Your task to perform on an android device: Open Google Chrome and click the shortcut for Amazon.com Image 0: 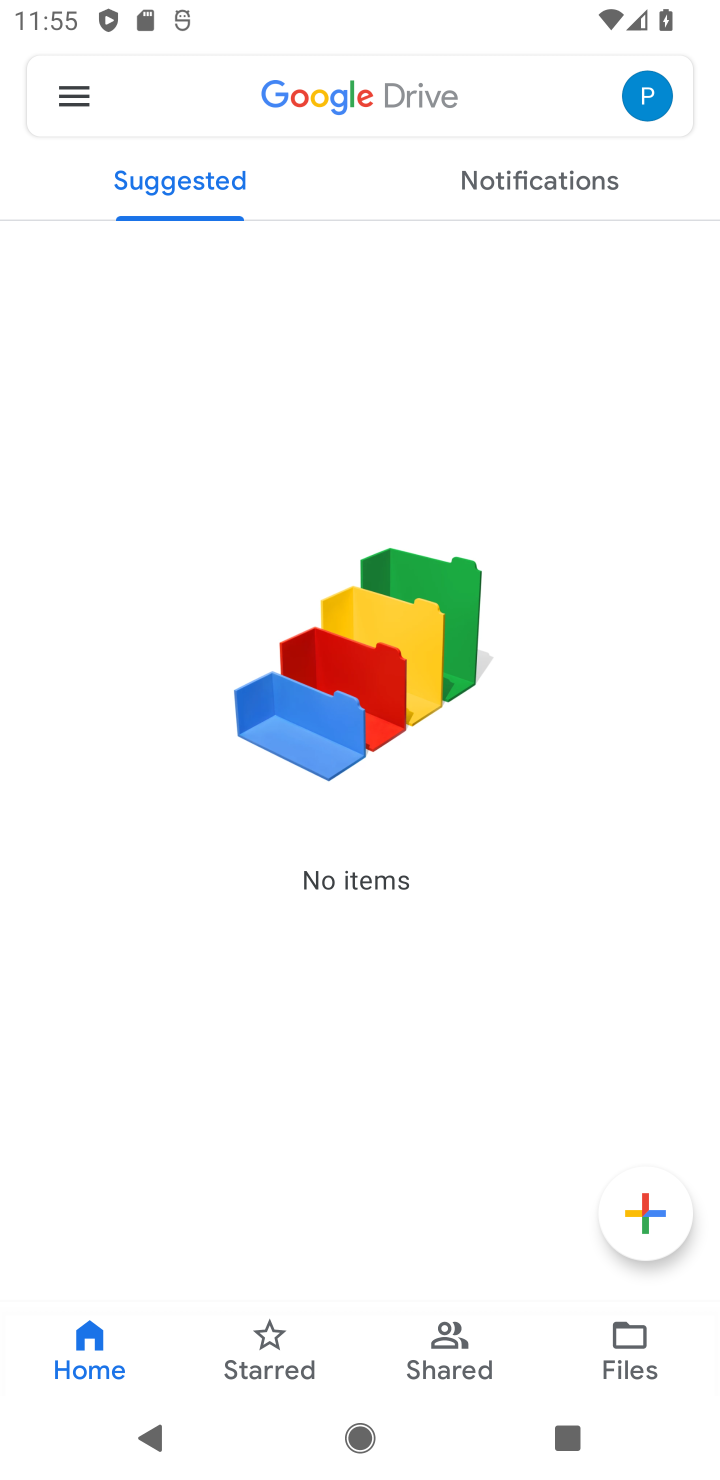
Step 0: press home button
Your task to perform on an android device: Open Google Chrome and click the shortcut for Amazon.com Image 1: 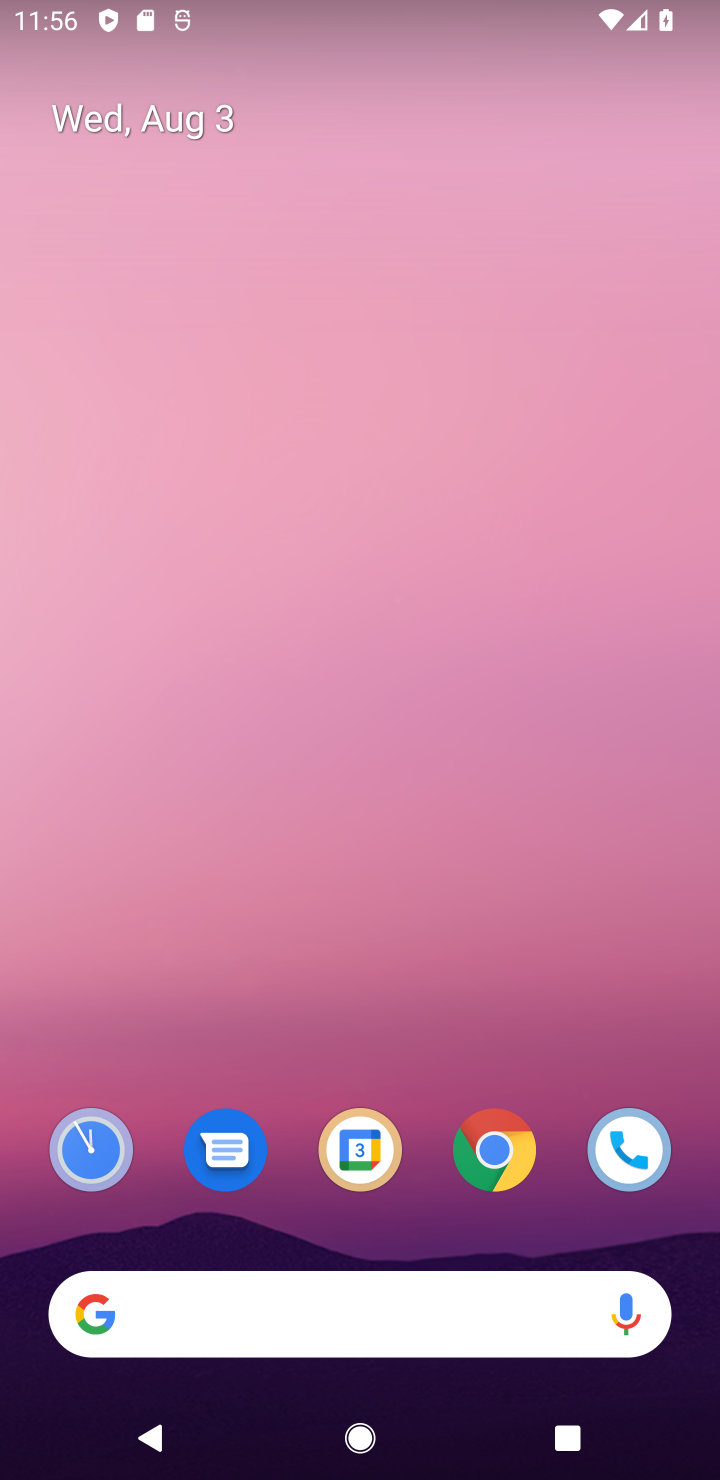
Step 1: drag from (427, 1074) to (376, 380)
Your task to perform on an android device: Open Google Chrome and click the shortcut for Amazon.com Image 2: 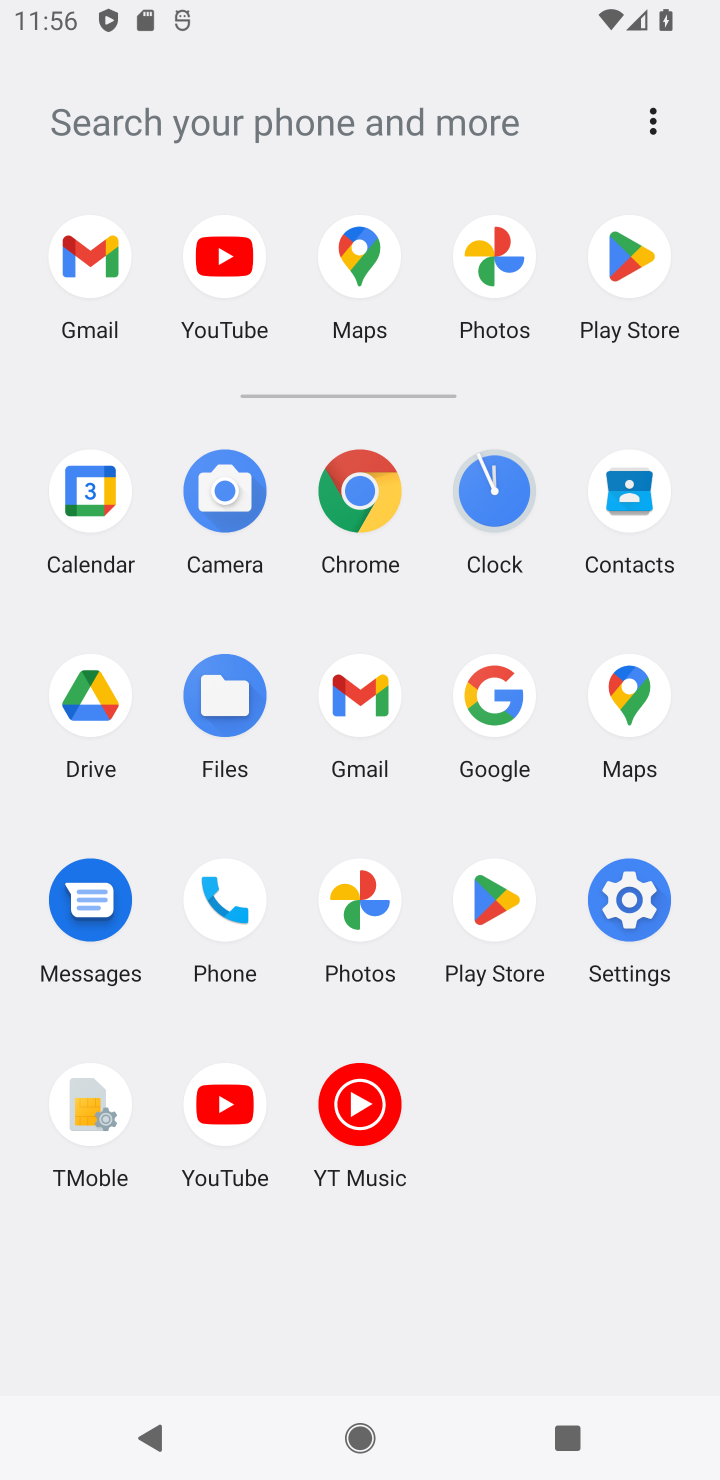
Step 2: click (366, 505)
Your task to perform on an android device: Open Google Chrome and click the shortcut for Amazon.com Image 3: 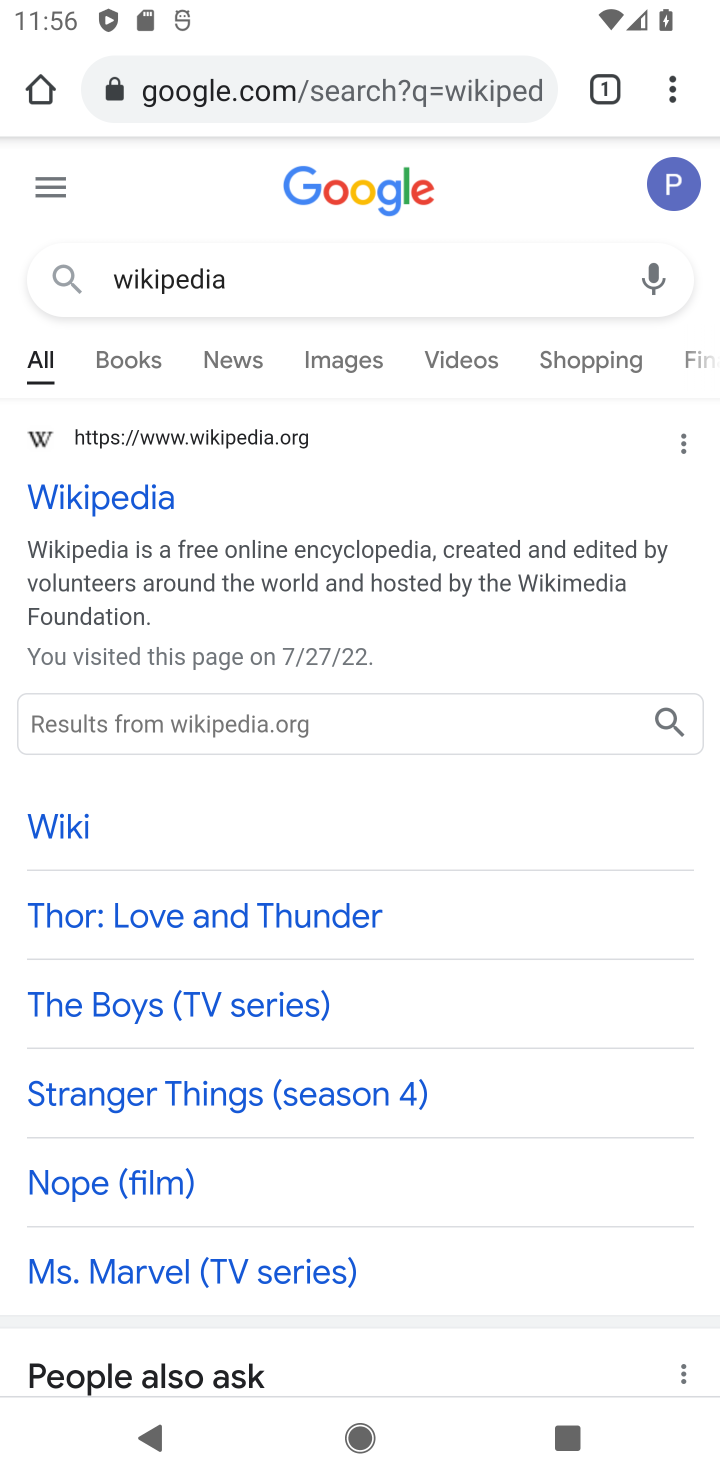
Step 3: press back button
Your task to perform on an android device: Open Google Chrome and click the shortcut for Amazon.com Image 4: 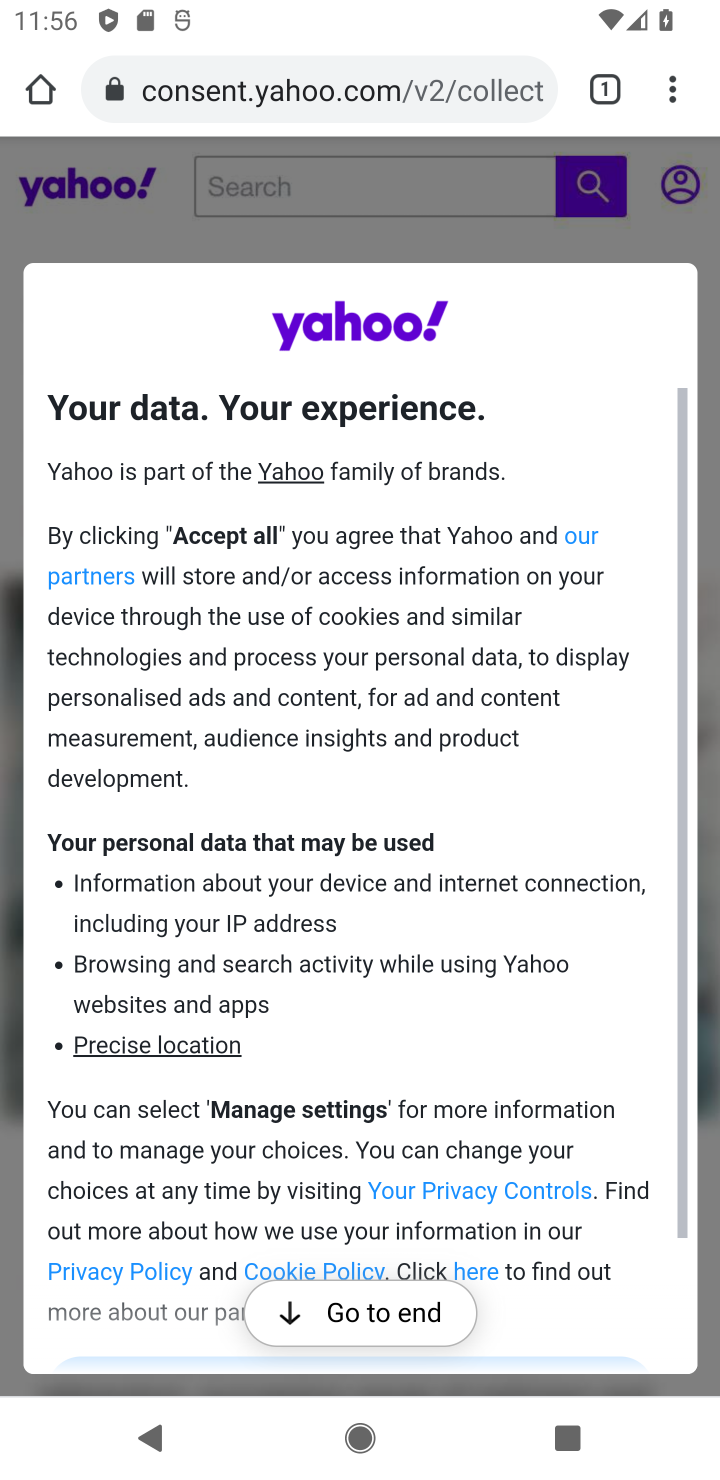
Step 4: press back button
Your task to perform on an android device: Open Google Chrome and click the shortcut for Amazon.com Image 5: 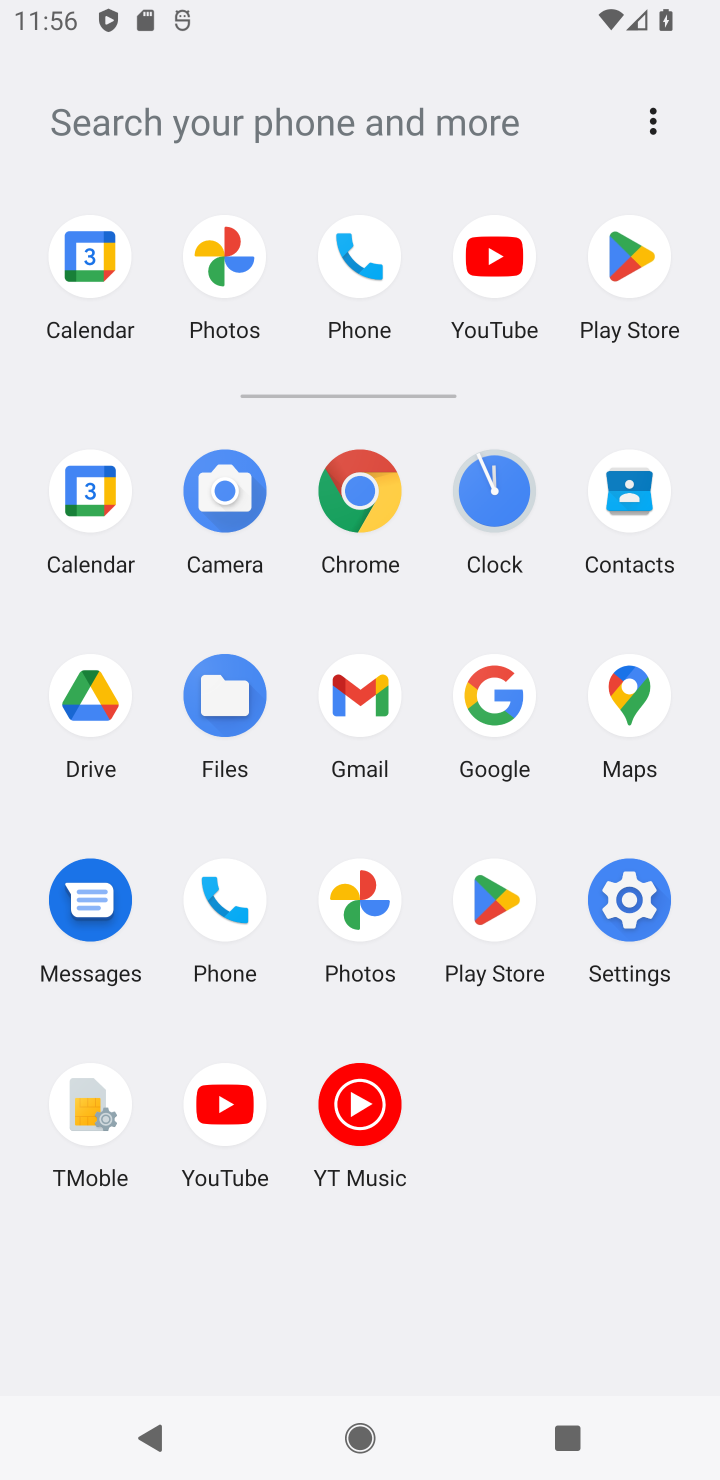
Step 5: click (369, 485)
Your task to perform on an android device: Open Google Chrome and click the shortcut for Amazon.com Image 6: 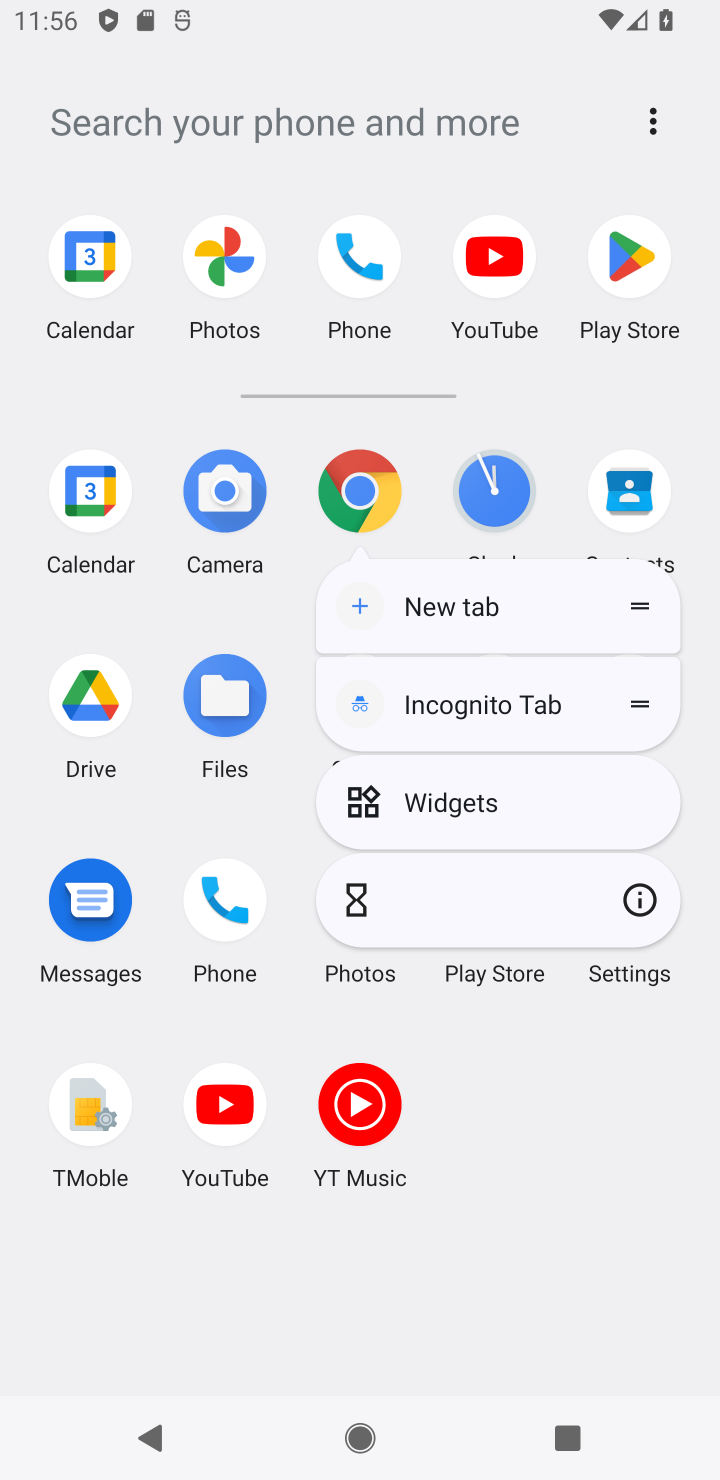
Step 6: click (369, 485)
Your task to perform on an android device: Open Google Chrome and click the shortcut for Amazon.com Image 7: 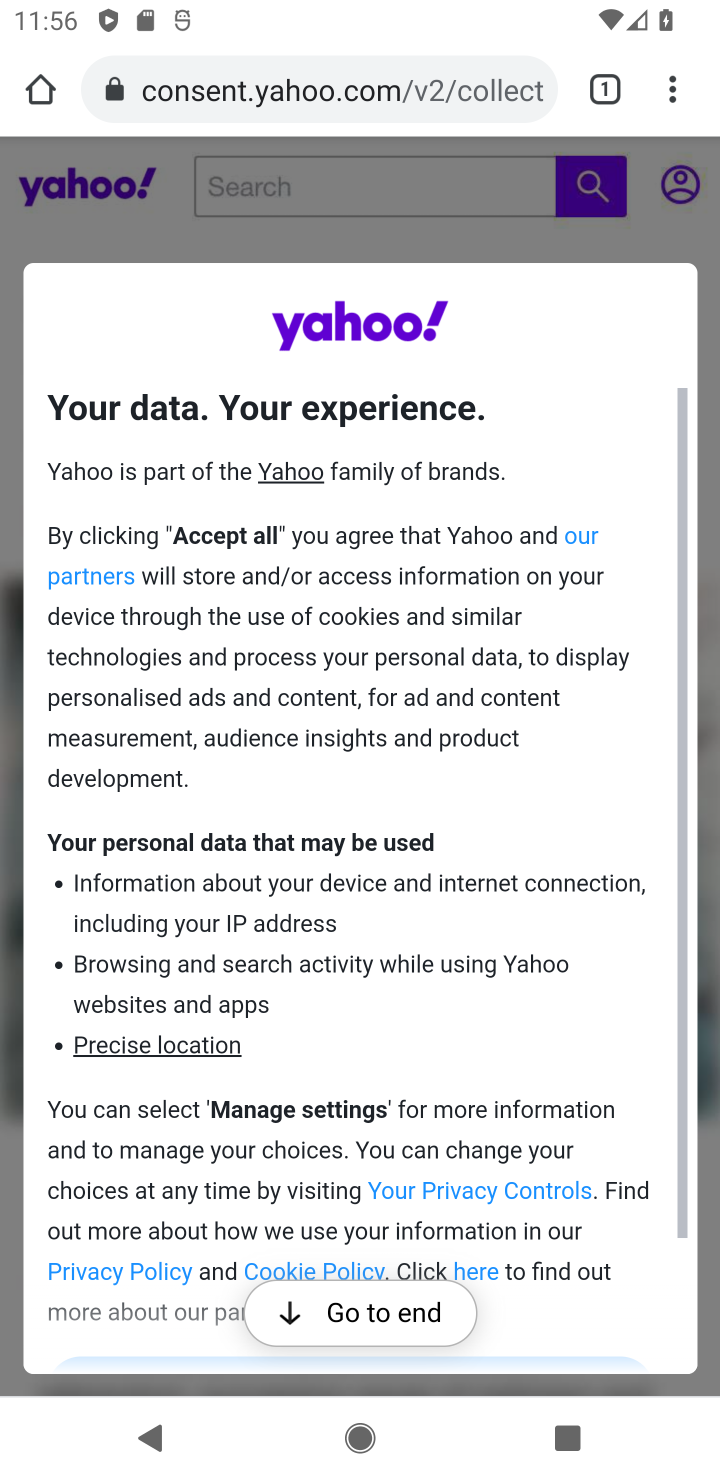
Step 7: task complete